Your task to perform on an android device: Open the calendar and show me this week's events Image 0: 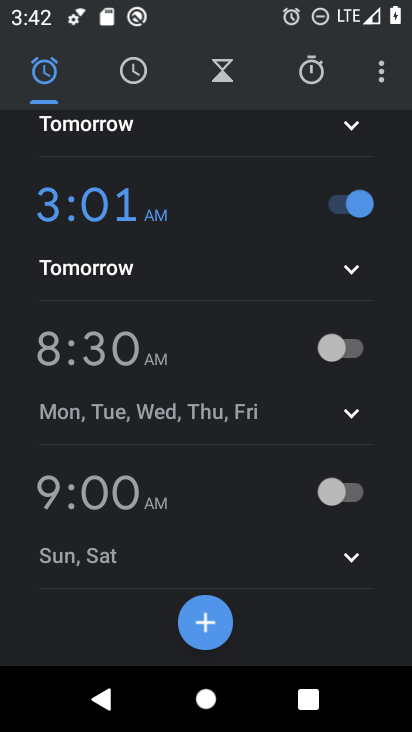
Step 0: press home button
Your task to perform on an android device: Open the calendar and show me this week's events Image 1: 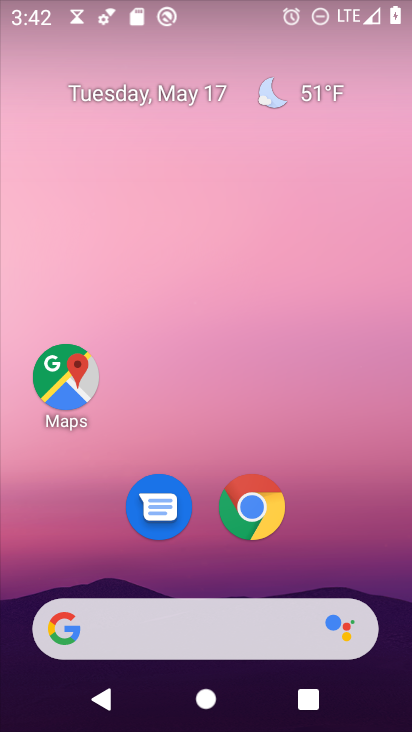
Step 1: drag from (216, 568) to (252, 50)
Your task to perform on an android device: Open the calendar and show me this week's events Image 2: 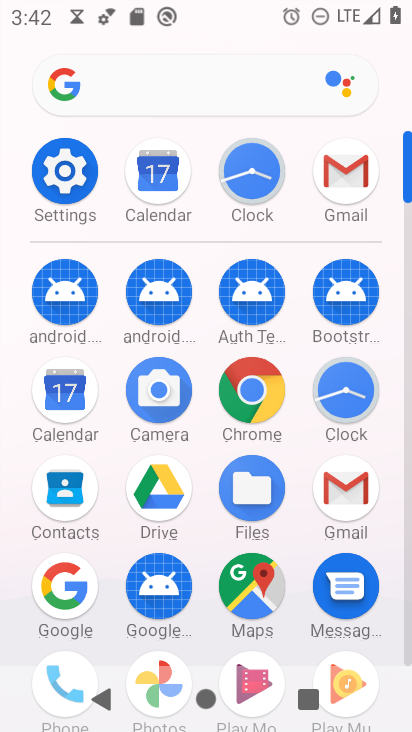
Step 2: click (64, 403)
Your task to perform on an android device: Open the calendar and show me this week's events Image 3: 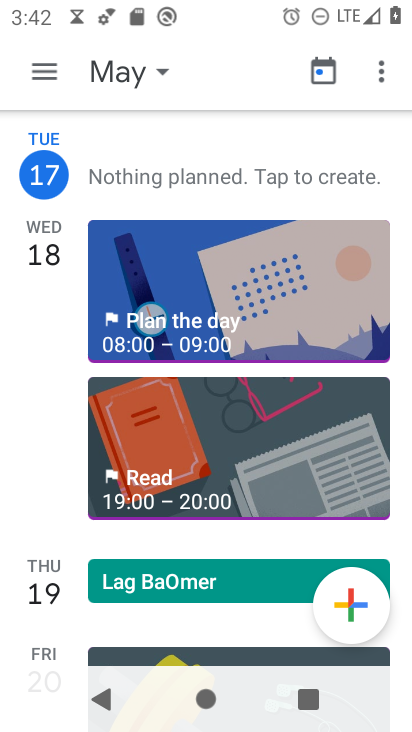
Step 3: click (139, 82)
Your task to perform on an android device: Open the calendar and show me this week's events Image 4: 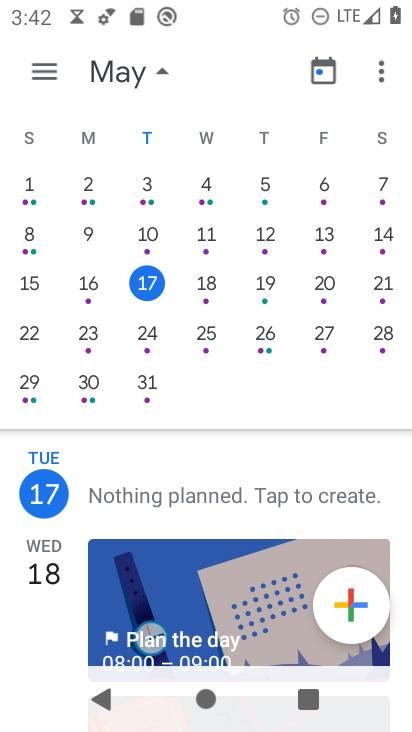
Step 4: click (145, 288)
Your task to perform on an android device: Open the calendar and show me this week's events Image 5: 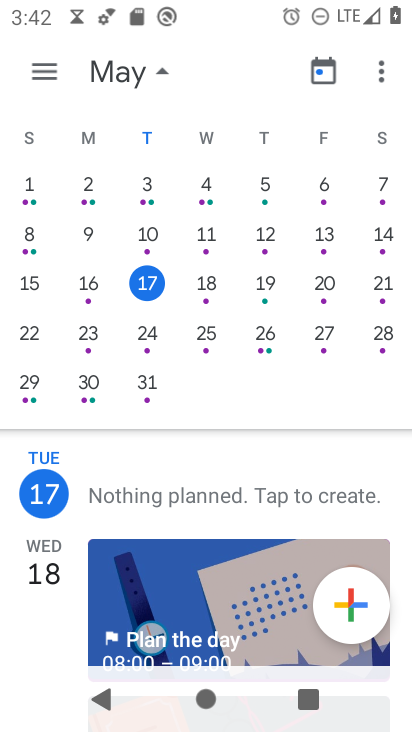
Step 5: task complete